Your task to perform on an android device: turn off location history Image 0: 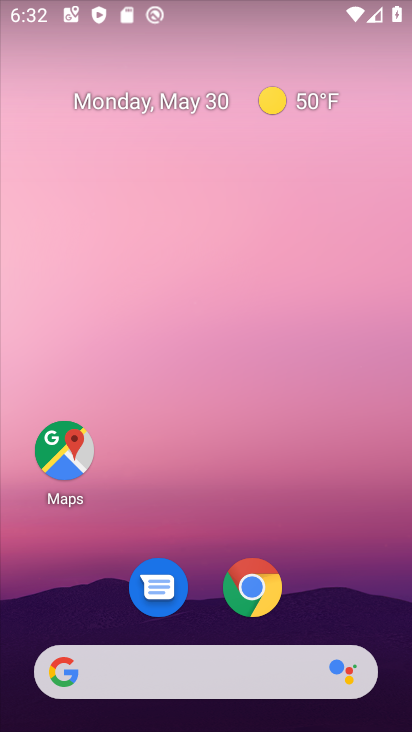
Step 0: drag from (338, 546) to (209, 11)
Your task to perform on an android device: turn off location history Image 1: 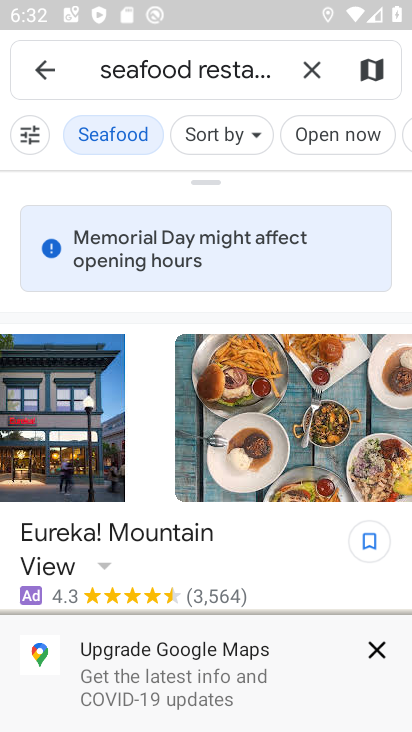
Step 1: press back button
Your task to perform on an android device: turn off location history Image 2: 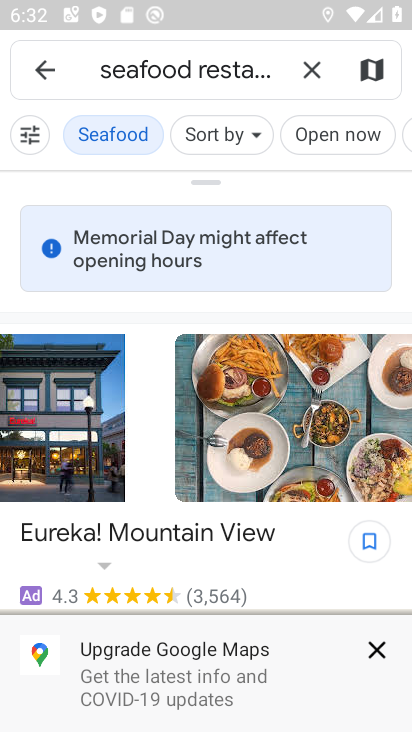
Step 2: press home button
Your task to perform on an android device: turn off location history Image 3: 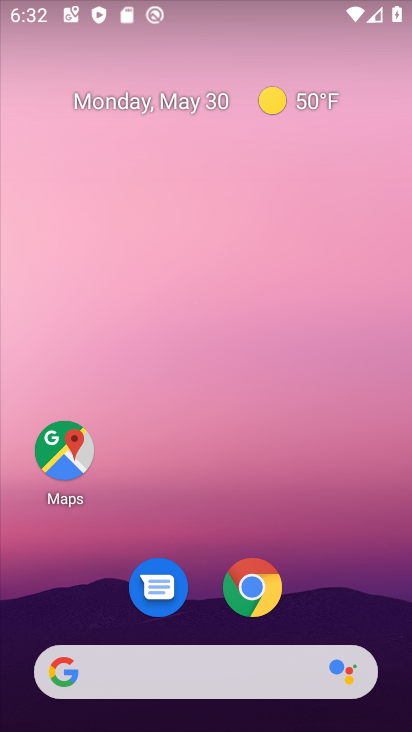
Step 3: drag from (356, 564) to (224, 38)
Your task to perform on an android device: turn off location history Image 4: 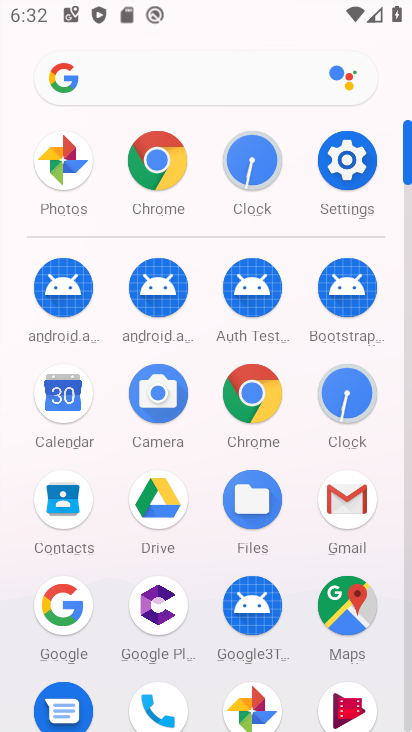
Step 4: drag from (8, 482) to (23, 281)
Your task to perform on an android device: turn off location history Image 5: 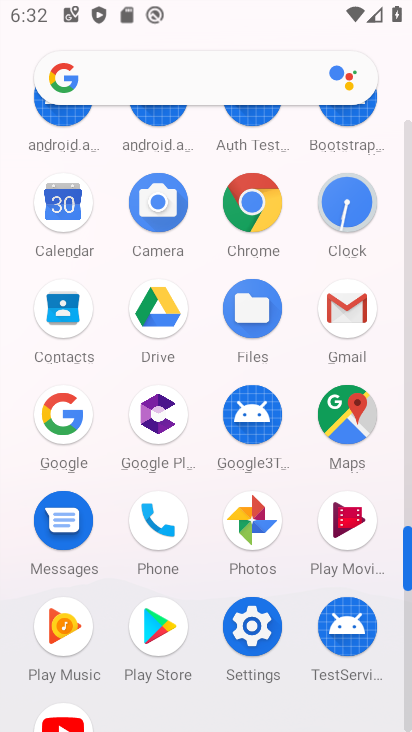
Step 5: click (254, 625)
Your task to perform on an android device: turn off location history Image 6: 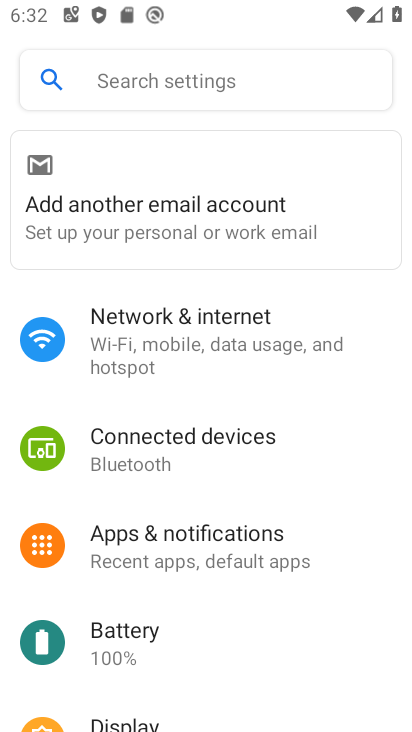
Step 6: drag from (317, 600) to (298, 193)
Your task to perform on an android device: turn off location history Image 7: 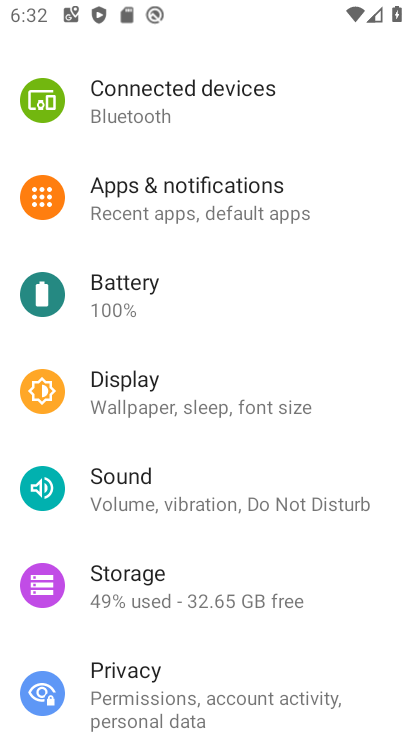
Step 7: drag from (280, 586) to (265, 160)
Your task to perform on an android device: turn off location history Image 8: 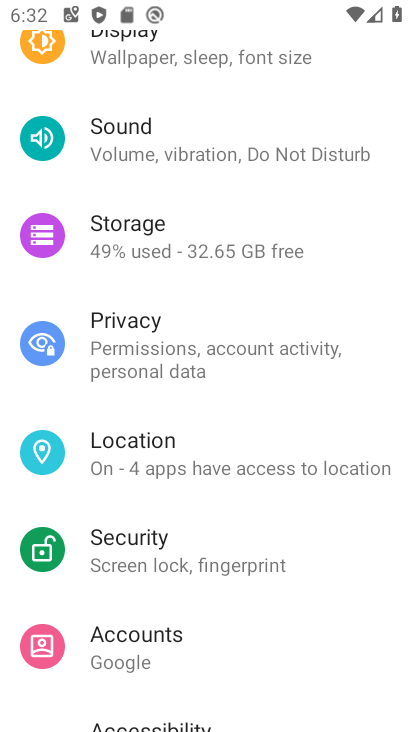
Step 8: click (151, 459)
Your task to perform on an android device: turn off location history Image 9: 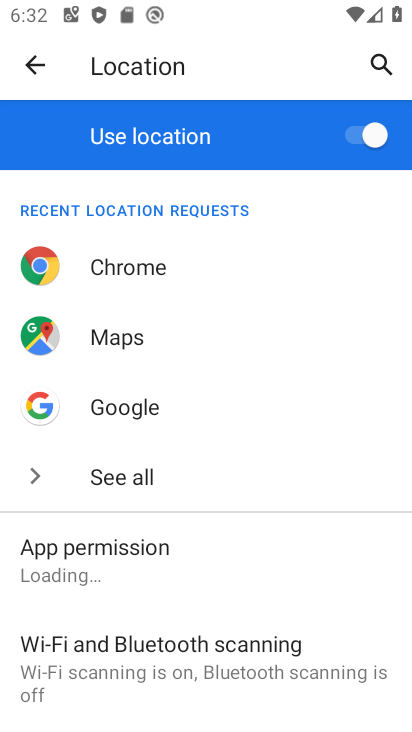
Step 9: drag from (266, 607) to (264, 195)
Your task to perform on an android device: turn off location history Image 10: 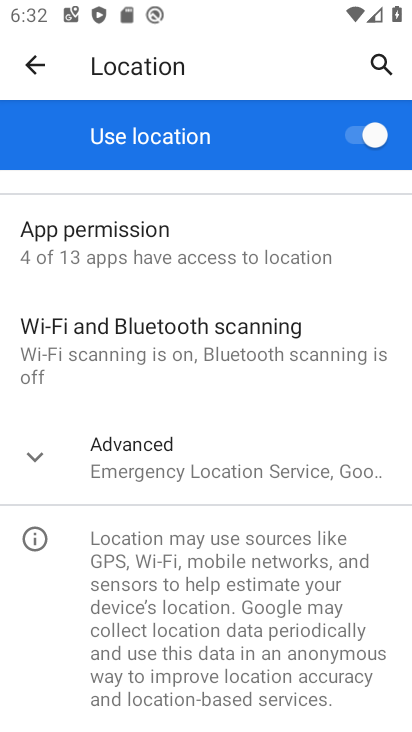
Step 10: click (131, 469)
Your task to perform on an android device: turn off location history Image 11: 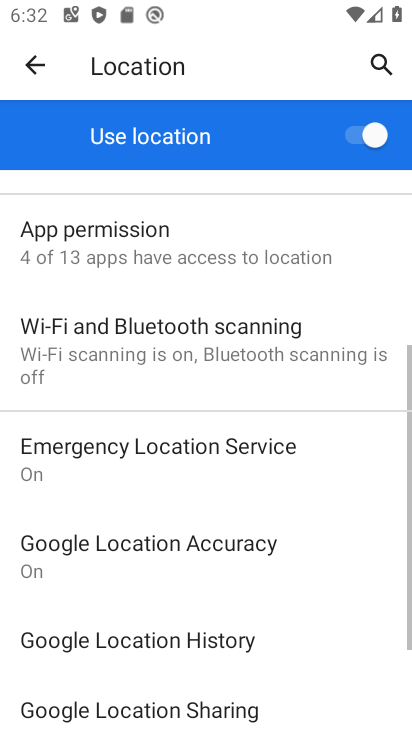
Step 11: drag from (257, 661) to (295, 263)
Your task to perform on an android device: turn off location history Image 12: 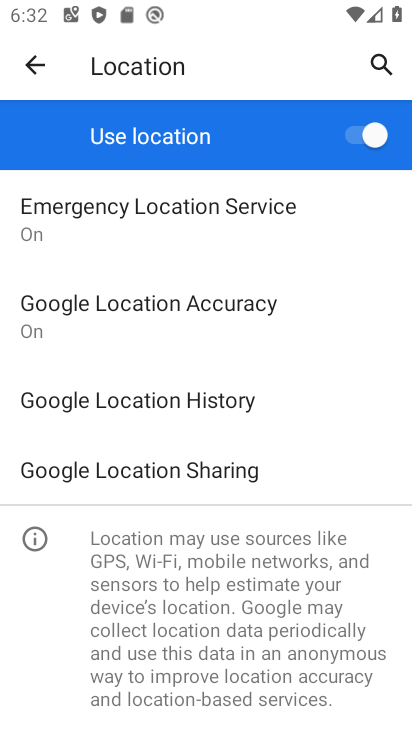
Step 12: click (195, 413)
Your task to perform on an android device: turn off location history Image 13: 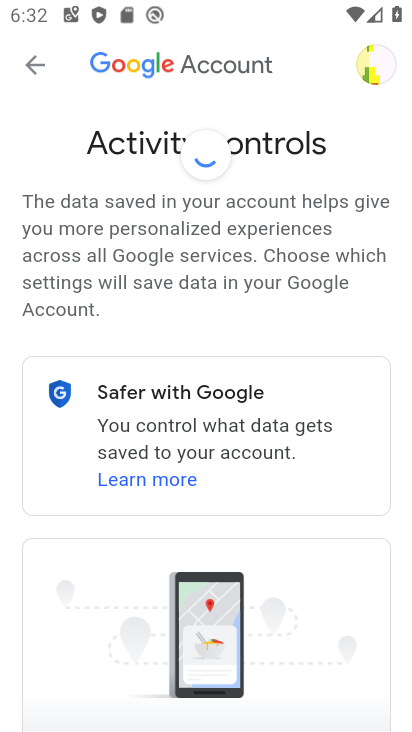
Step 13: drag from (305, 518) to (270, 65)
Your task to perform on an android device: turn off location history Image 14: 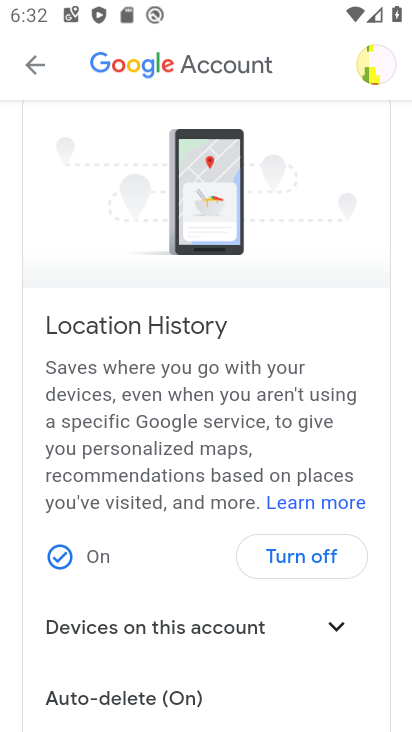
Step 14: drag from (234, 569) to (251, 242)
Your task to perform on an android device: turn off location history Image 15: 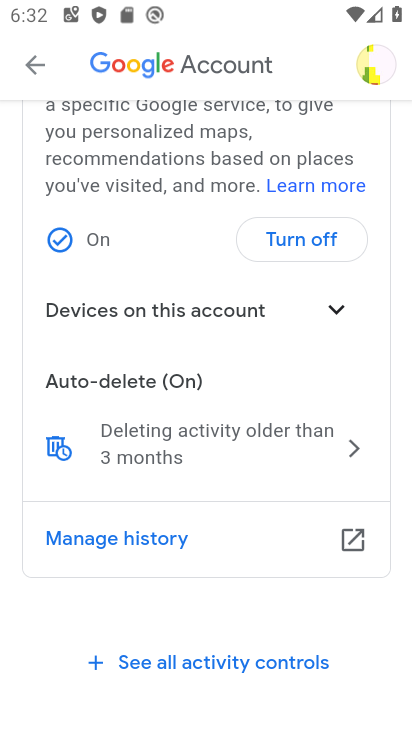
Step 15: click (287, 233)
Your task to perform on an android device: turn off location history Image 16: 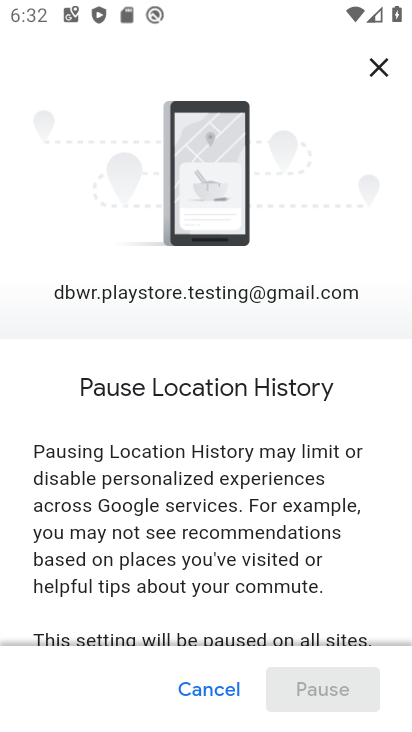
Step 16: drag from (243, 579) to (280, 97)
Your task to perform on an android device: turn off location history Image 17: 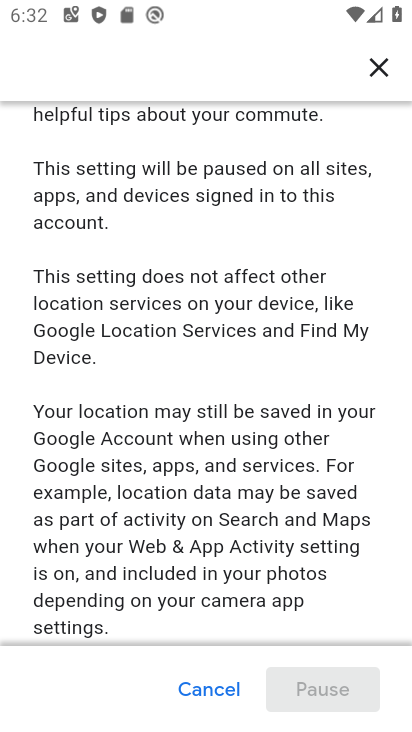
Step 17: drag from (236, 498) to (234, 69)
Your task to perform on an android device: turn off location history Image 18: 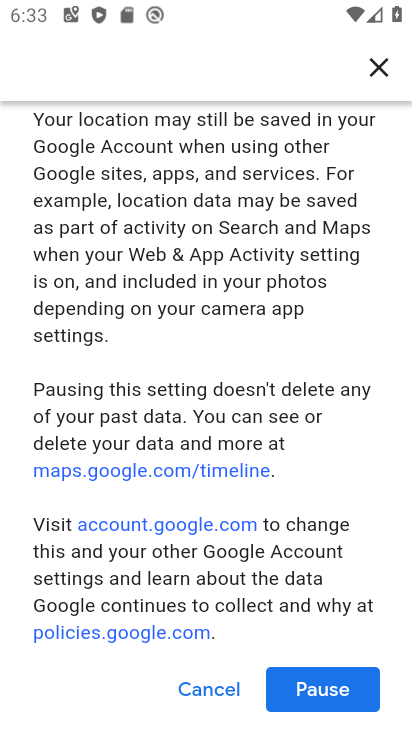
Step 18: drag from (255, 579) to (261, 110)
Your task to perform on an android device: turn off location history Image 19: 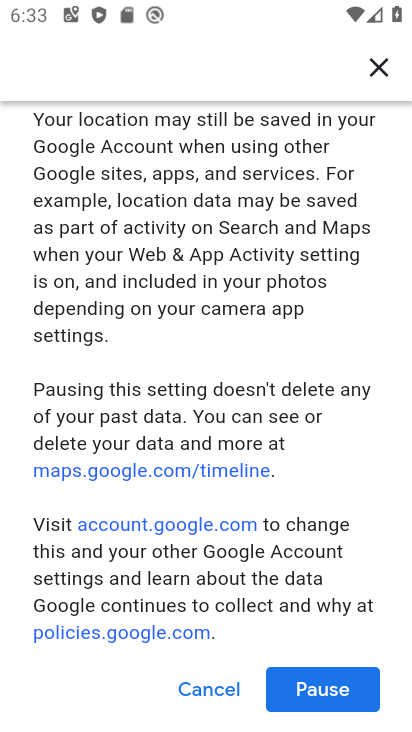
Step 19: click (310, 687)
Your task to perform on an android device: turn off location history Image 20: 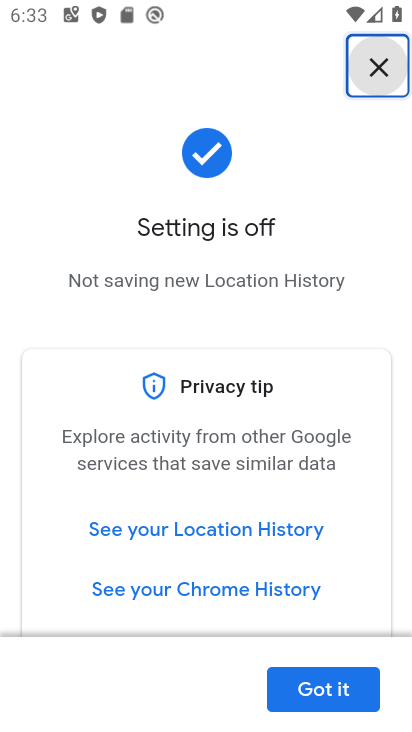
Step 20: task complete